Your task to perform on an android device: What's the weather today? Image 0: 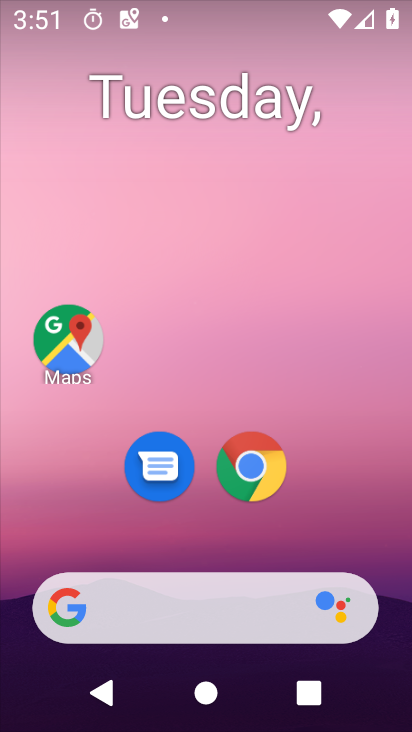
Step 0: click (235, 622)
Your task to perform on an android device: What's the weather today? Image 1: 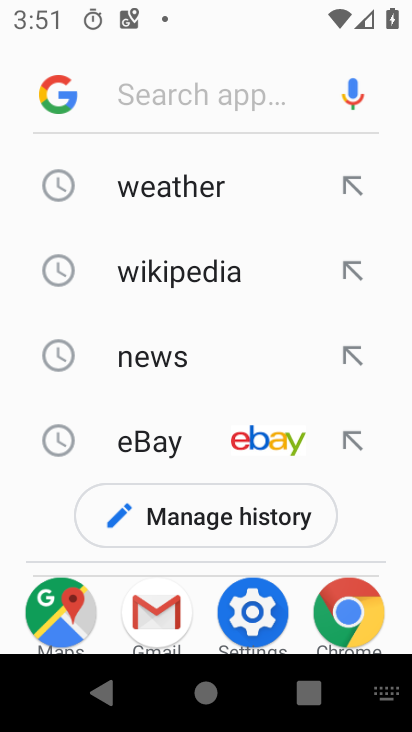
Step 1: click (200, 193)
Your task to perform on an android device: What's the weather today? Image 2: 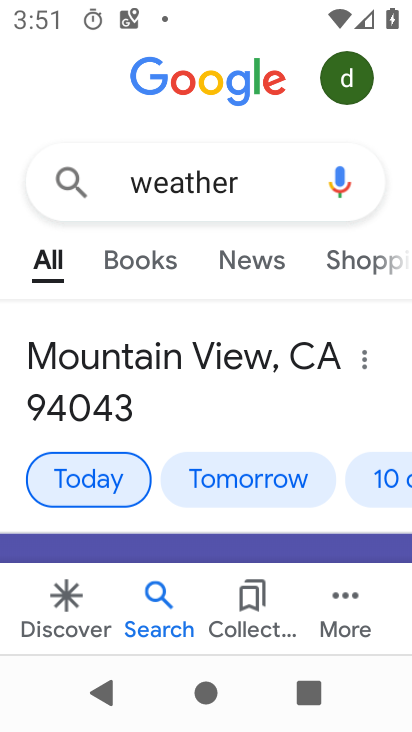
Step 2: task complete